Your task to perform on an android device: Open calendar and show me the second week of next month Image 0: 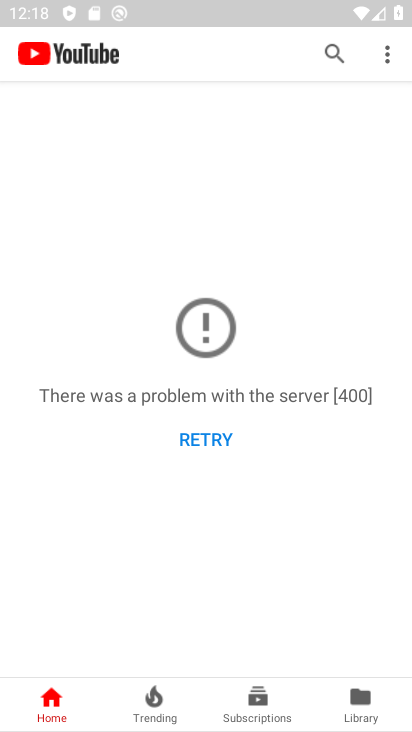
Step 0: press back button
Your task to perform on an android device: Open calendar and show me the second week of next month Image 1: 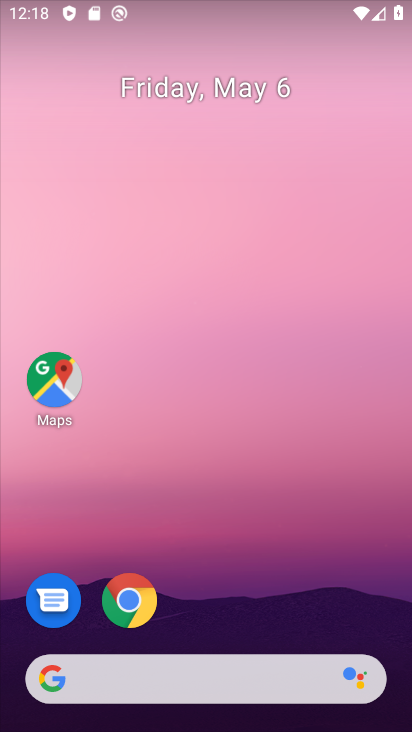
Step 1: drag from (163, 647) to (246, 237)
Your task to perform on an android device: Open calendar and show me the second week of next month Image 2: 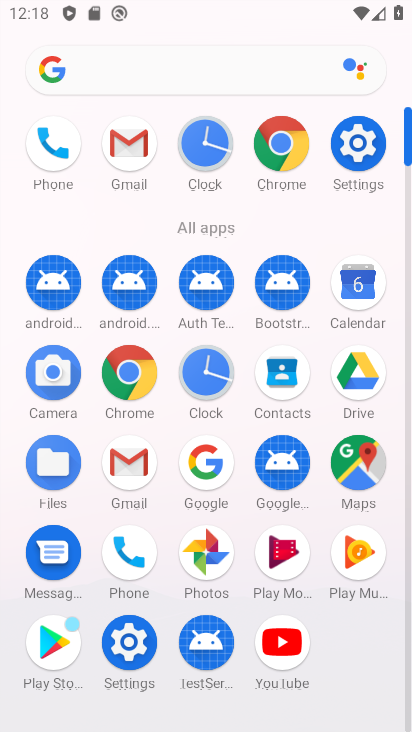
Step 2: click (369, 294)
Your task to perform on an android device: Open calendar and show me the second week of next month Image 3: 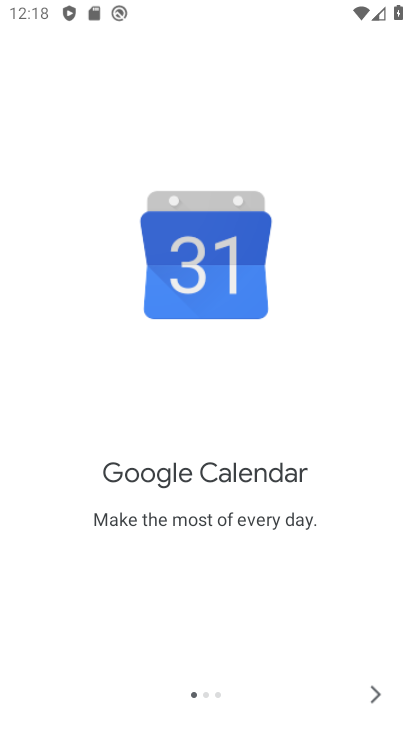
Step 3: click (376, 711)
Your task to perform on an android device: Open calendar and show me the second week of next month Image 4: 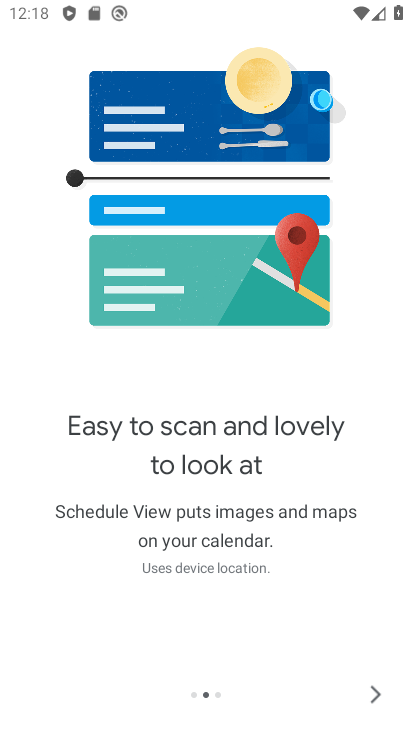
Step 4: click (371, 698)
Your task to perform on an android device: Open calendar and show me the second week of next month Image 5: 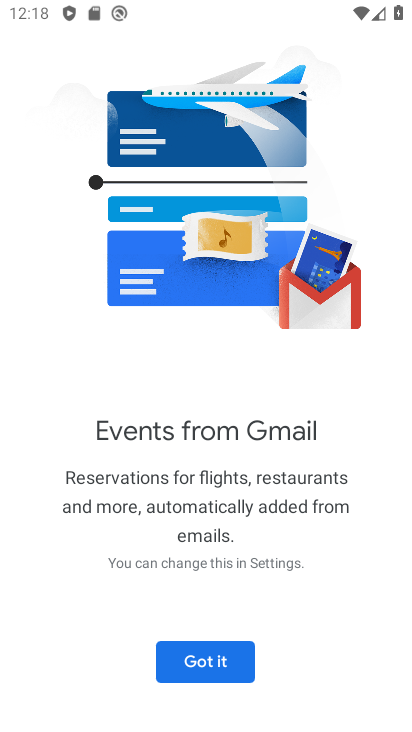
Step 5: click (211, 683)
Your task to perform on an android device: Open calendar and show me the second week of next month Image 6: 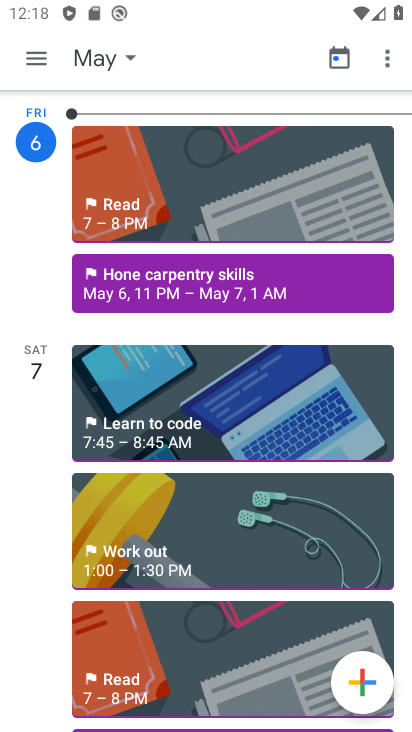
Step 6: click (94, 50)
Your task to perform on an android device: Open calendar and show me the second week of next month Image 7: 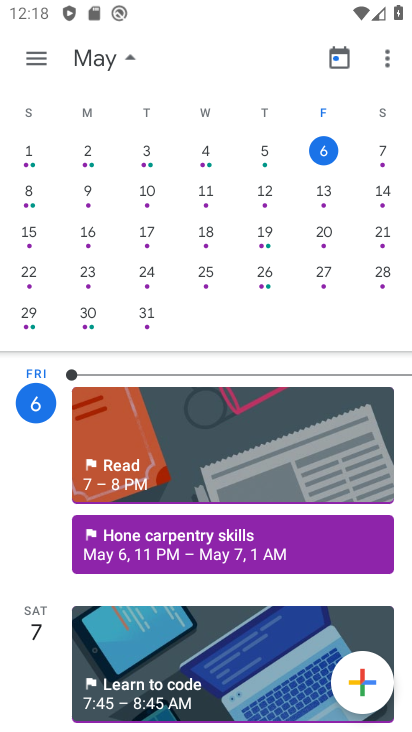
Step 7: drag from (363, 322) to (32, 219)
Your task to perform on an android device: Open calendar and show me the second week of next month Image 8: 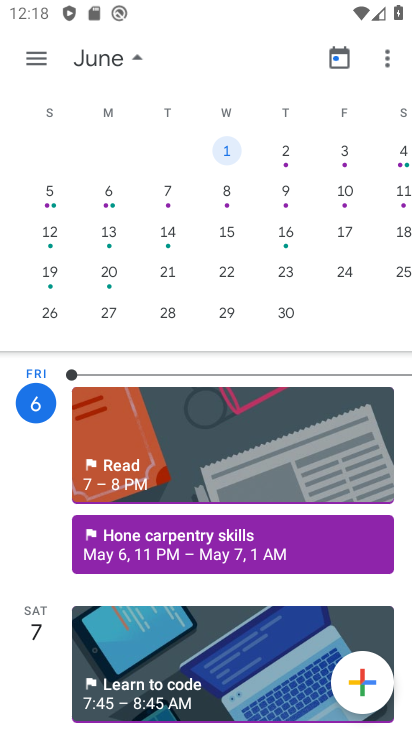
Step 8: drag from (343, 141) to (375, 112)
Your task to perform on an android device: Open calendar and show me the second week of next month Image 9: 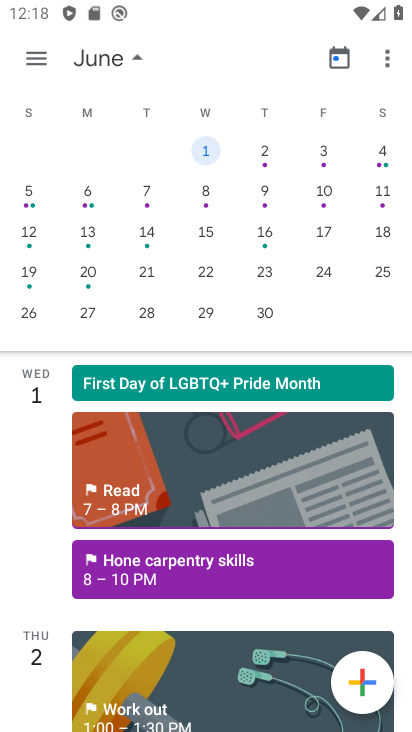
Step 9: click (39, 233)
Your task to perform on an android device: Open calendar and show me the second week of next month Image 10: 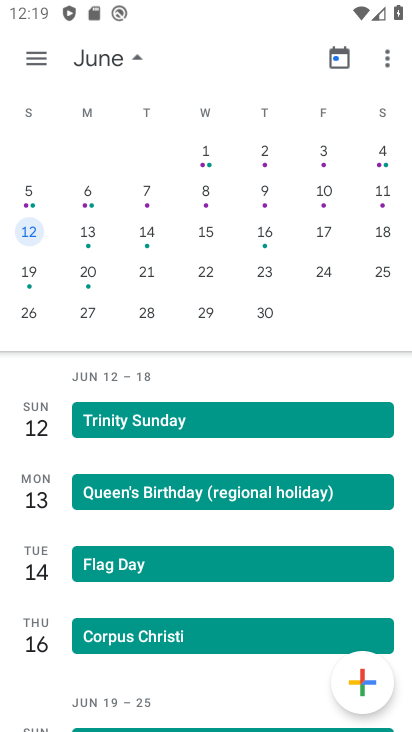
Step 10: click (144, 68)
Your task to perform on an android device: Open calendar and show me the second week of next month Image 11: 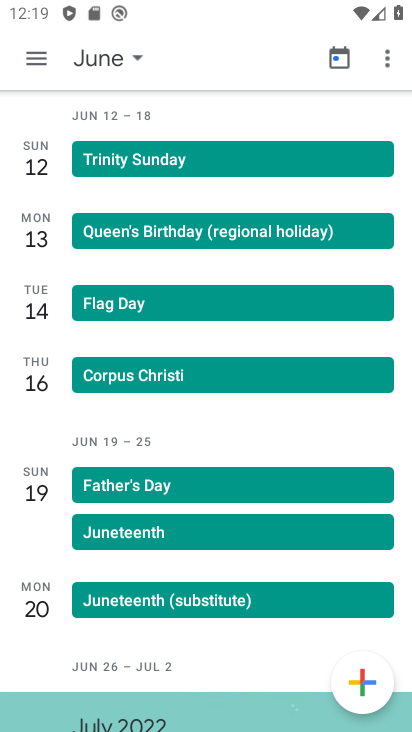
Step 11: click (18, 46)
Your task to perform on an android device: Open calendar and show me the second week of next month Image 12: 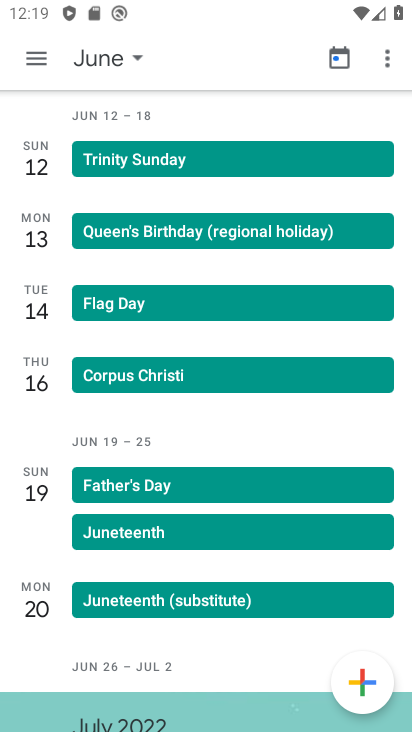
Step 12: click (51, 51)
Your task to perform on an android device: Open calendar and show me the second week of next month Image 13: 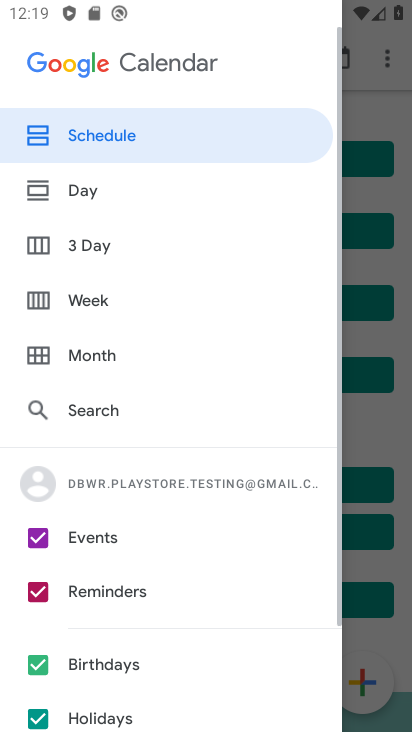
Step 13: click (83, 313)
Your task to perform on an android device: Open calendar and show me the second week of next month Image 14: 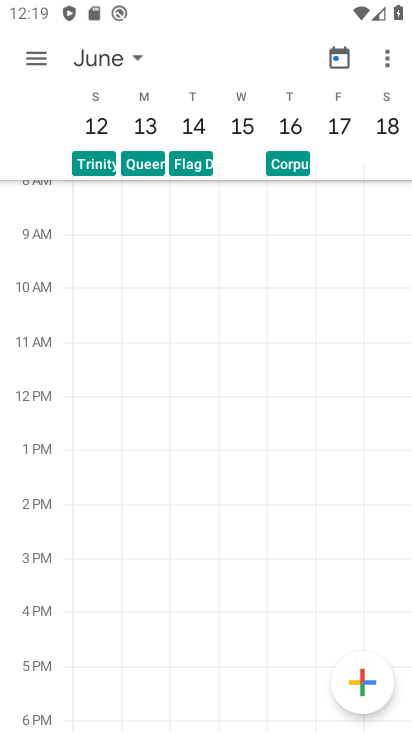
Step 14: task complete